Your task to perform on an android device: What is the recent news? Image 0: 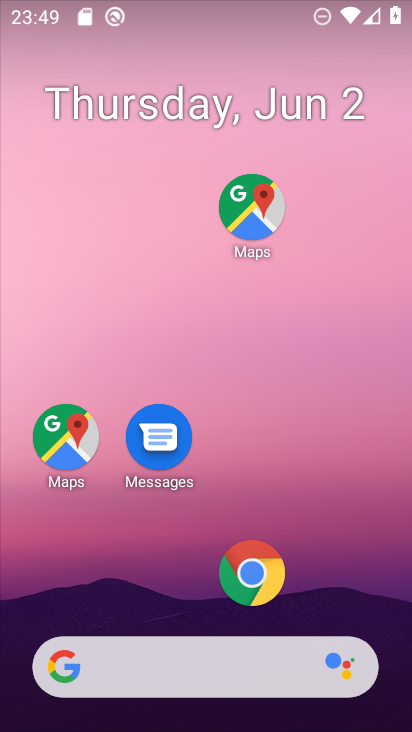
Step 0: click (274, 665)
Your task to perform on an android device: What is the recent news? Image 1: 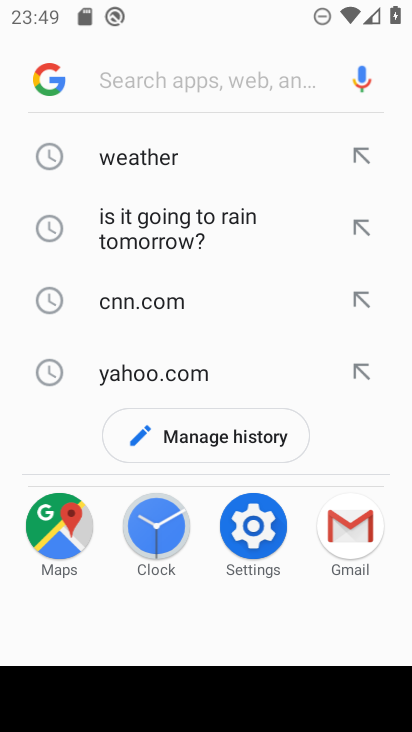
Step 1: type "news"
Your task to perform on an android device: What is the recent news? Image 2: 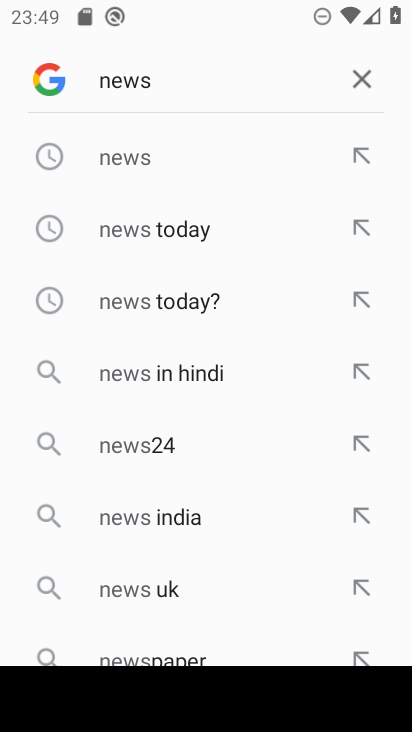
Step 2: click (168, 153)
Your task to perform on an android device: What is the recent news? Image 3: 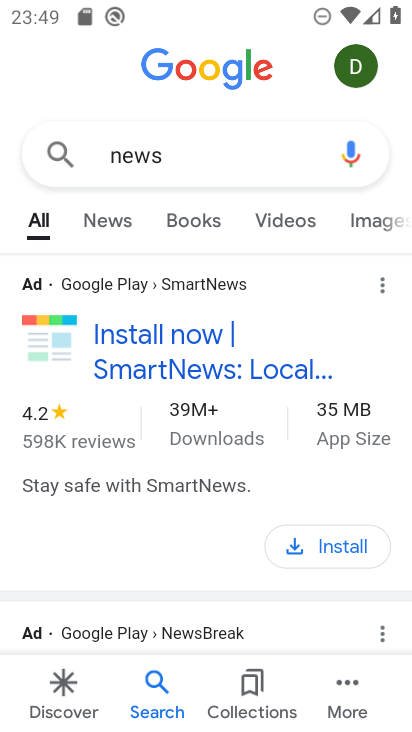
Step 3: task complete